Your task to perform on an android device: Open the phone app and click the voicemail tab. Image 0: 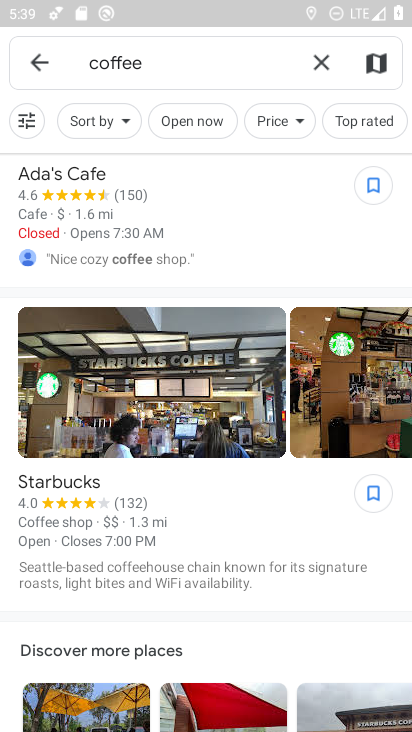
Step 0: press home button
Your task to perform on an android device: Open the phone app and click the voicemail tab. Image 1: 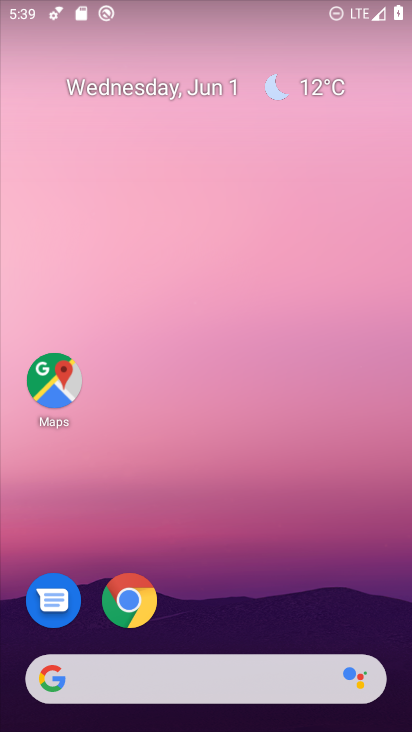
Step 1: drag from (390, 643) to (280, 122)
Your task to perform on an android device: Open the phone app and click the voicemail tab. Image 2: 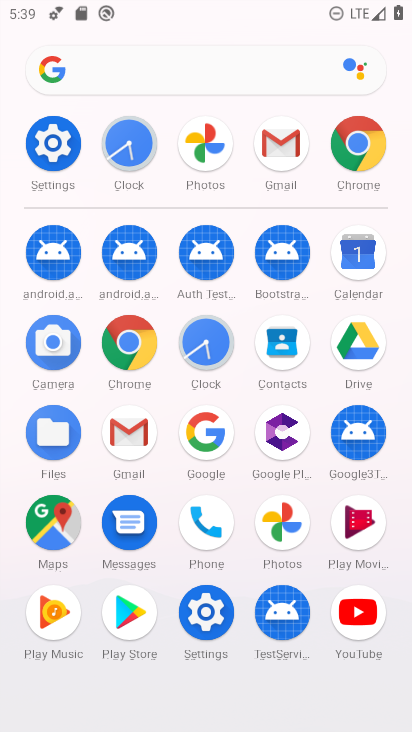
Step 2: click (208, 521)
Your task to perform on an android device: Open the phone app and click the voicemail tab. Image 3: 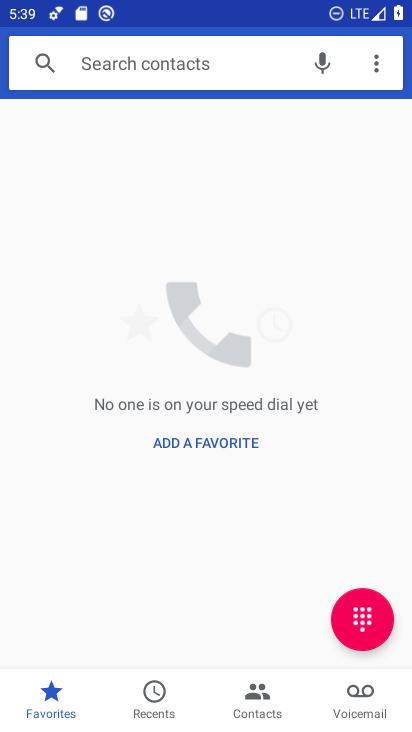
Step 3: click (352, 684)
Your task to perform on an android device: Open the phone app and click the voicemail tab. Image 4: 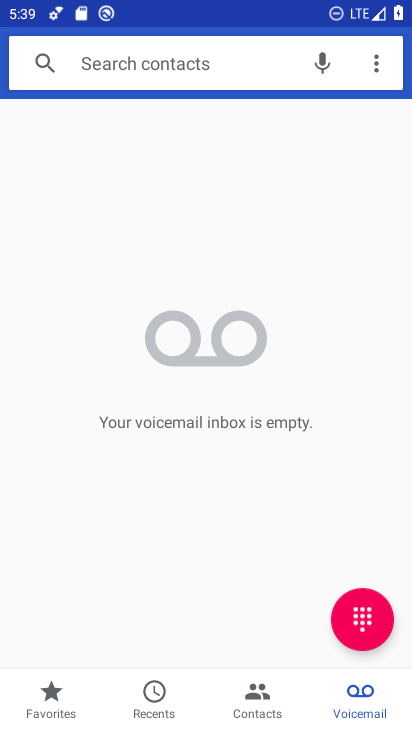
Step 4: task complete